Your task to perform on an android device: delete a single message in the gmail app Image 0: 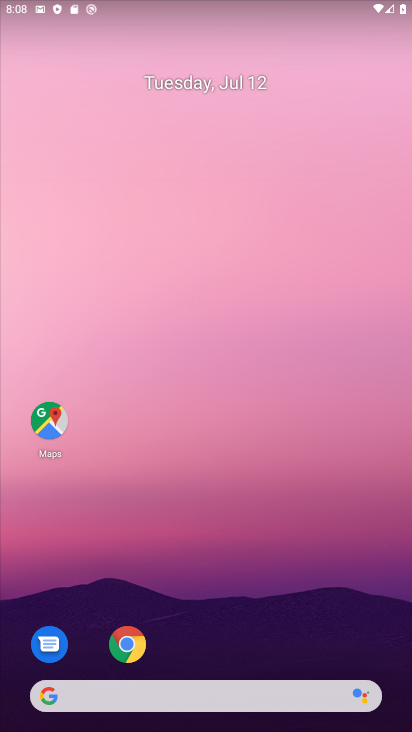
Step 0: drag from (182, 693) to (291, 252)
Your task to perform on an android device: delete a single message in the gmail app Image 1: 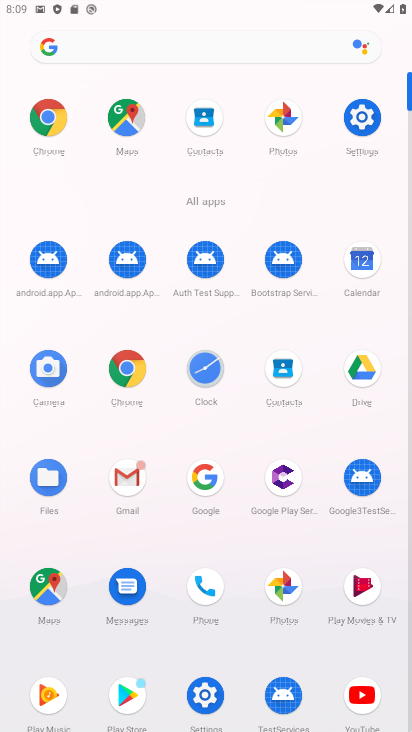
Step 1: click (123, 475)
Your task to perform on an android device: delete a single message in the gmail app Image 2: 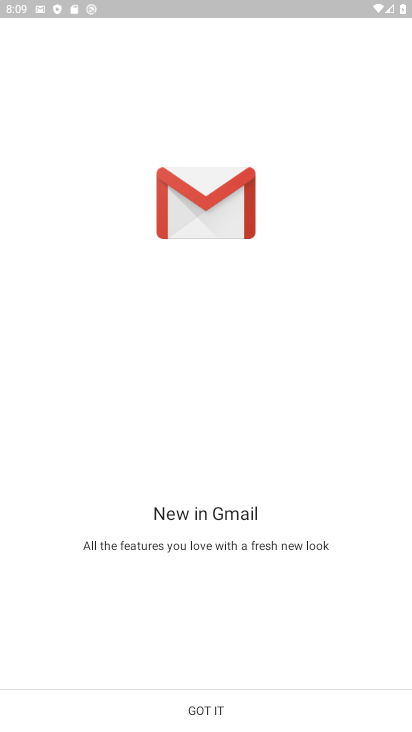
Step 2: click (215, 705)
Your task to perform on an android device: delete a single message in the gmail app Image 3: 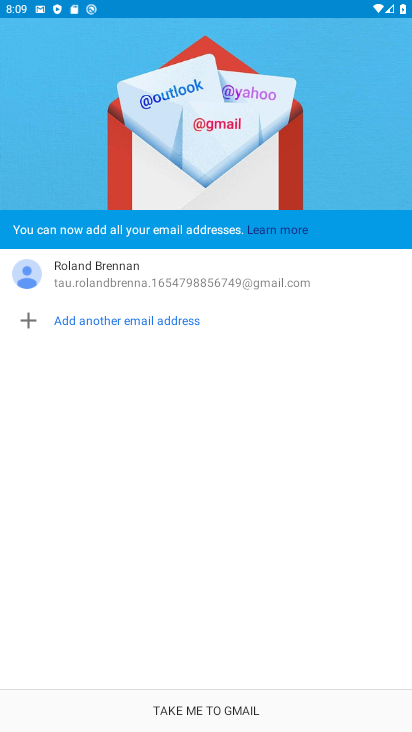
Step 3: click (182, 705)
Your task to perform on an android device: delete a single message in the gmail app Image 4: 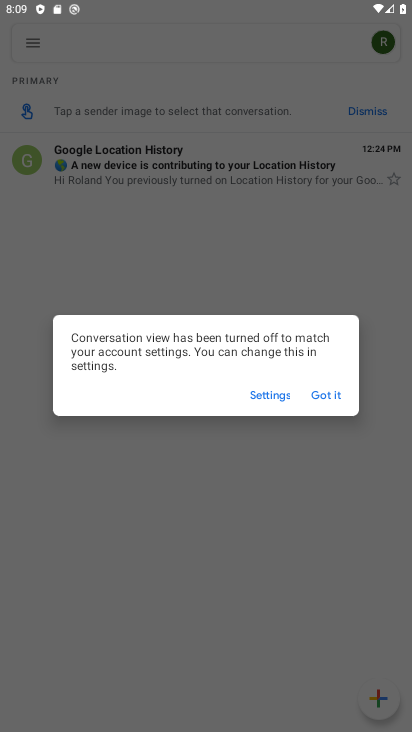
Step 4: click (328, 392)
Your task to perform on an android device: delete a single message in the gmail app Image 5: 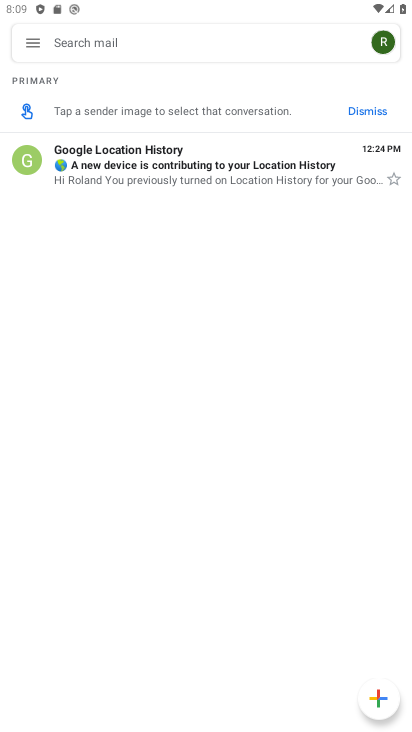
Step 5: click (208, 177)
Your task to perform on an android device: delete a single message in the gmail app Image 6: 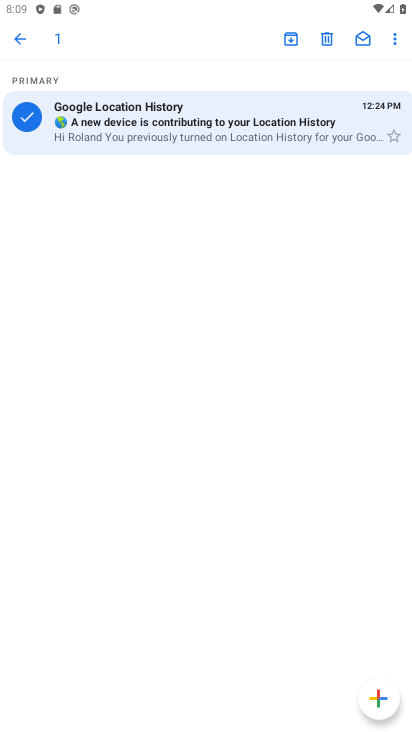
Step 6: click (324, 35)
Your task to perform on an android device: delete a single message in the gmail app Image 7: 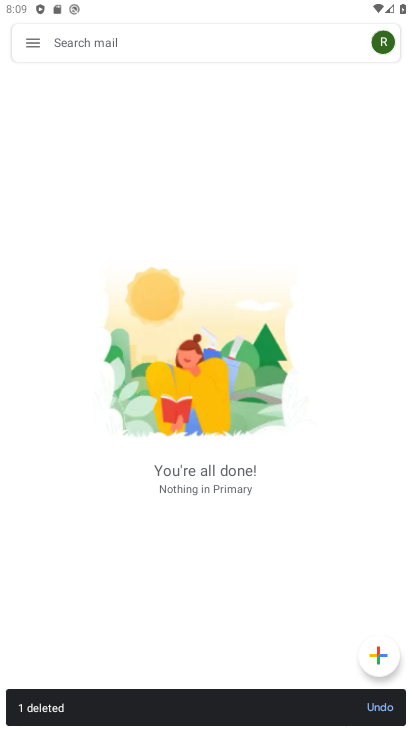
Step 7: task complete